Your task to perform on an android device: check google app version Image 0: 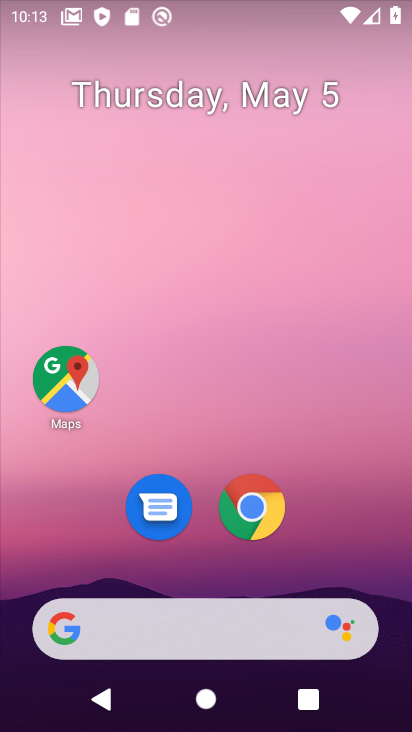
Step 0: drag from (342, 495) to (318, 17)
Your task to perform on an android device: check google app version Image 1: 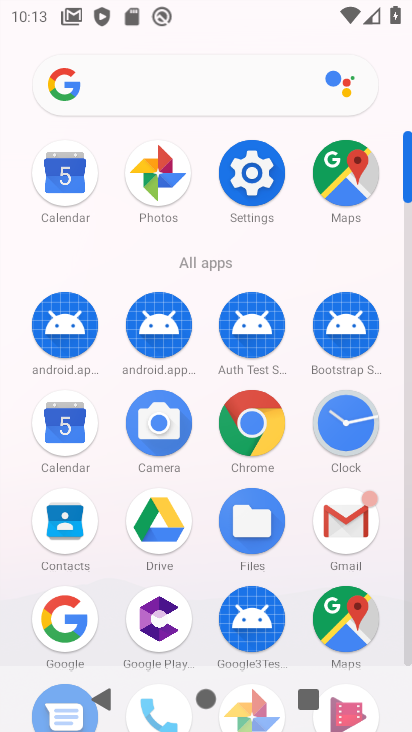
Step 1: click (67, 624)
Your task to perform on an android device: check google app version Image 2: 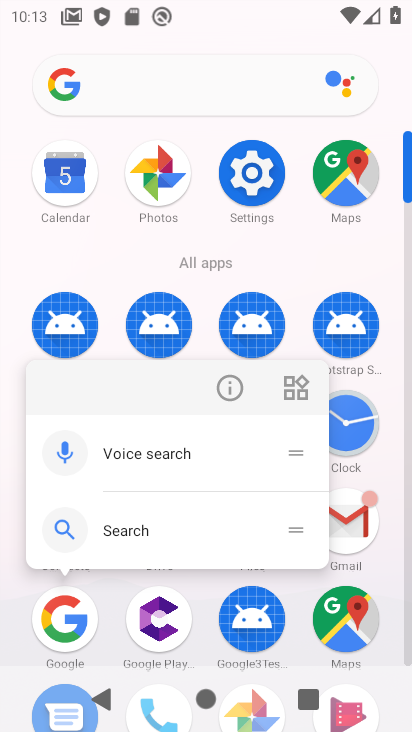
Step 2: click (230, 394)
Your task to perform on an android device: check google app version Image 3: 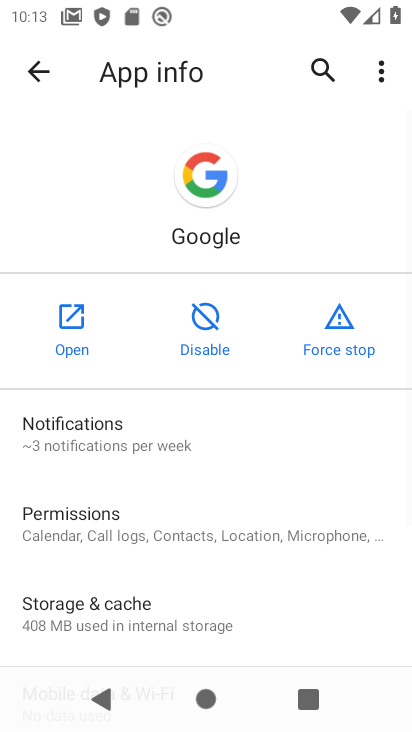
Step 3: drag from (251, 594) to (252, 60)
Your task to perform on an android device: check google app version Image 4: 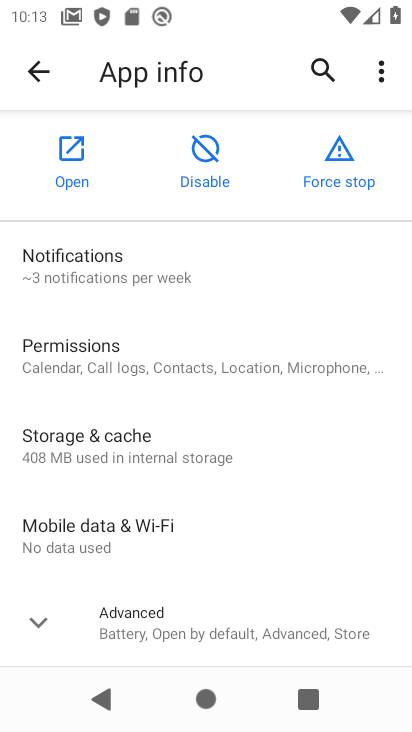
Step 4: click (40, 633)
Your task to perform on an android device: check google app version Image 5: 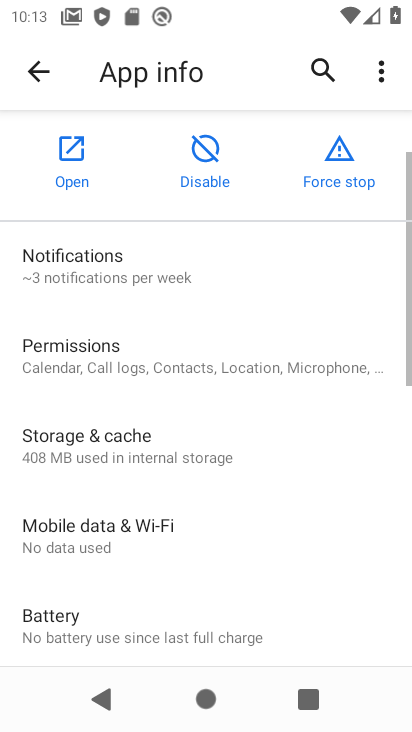
Step 5: task complete